Your task to perform on an android device: see tabs open on other devices in the chrome app Image 0: 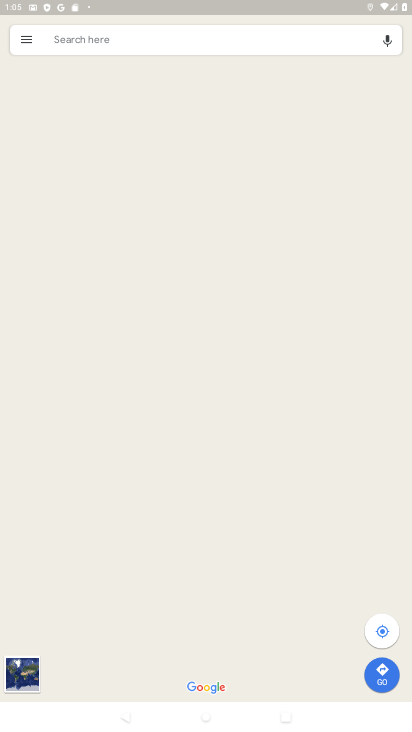
Step 0: press home button
Your task to perform on an android device: see tabs open on other devices in the chrome app Image 1: 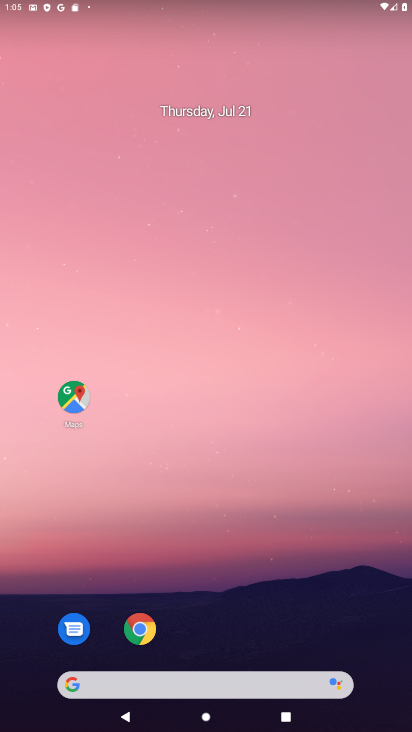
Step 1: drag from (216, 644) to (250, 69)
Your task to perform on an android device: see tabs open on other devices in the chrome app Image 2: 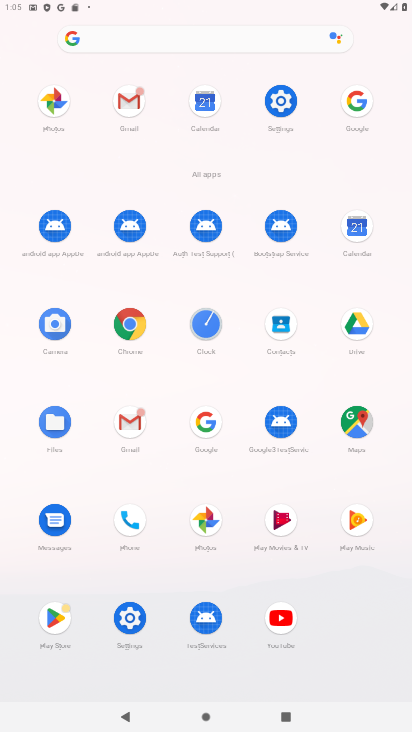
Step 2: click (132, 323)
Your task to perform on an android device: see tabs open on other devices in the chrome app Image 3: 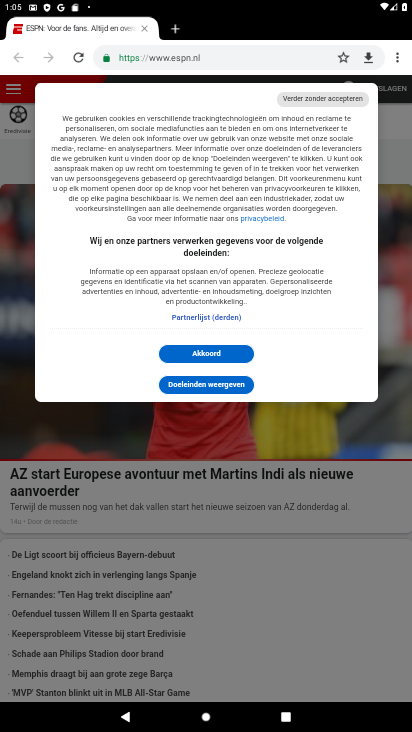
Step 3: click (392, 57)
Your task to perform on an android device: see tabs open on other devices in the chrome app Image 4: 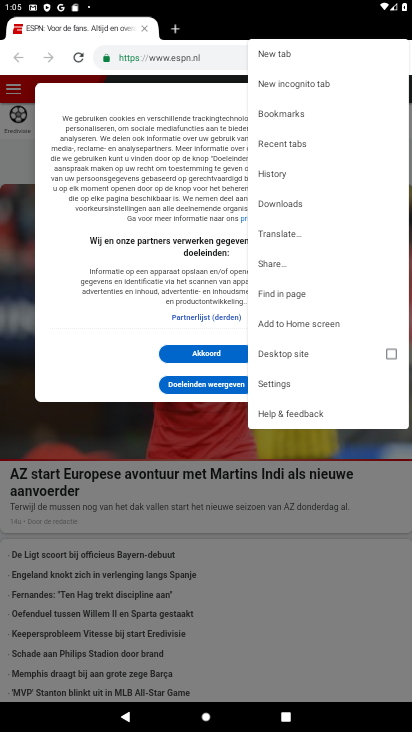
Step 4: click (296, 139)
Your task to perform on an android device: see tabs open on other devices in the chrome app Image 5: 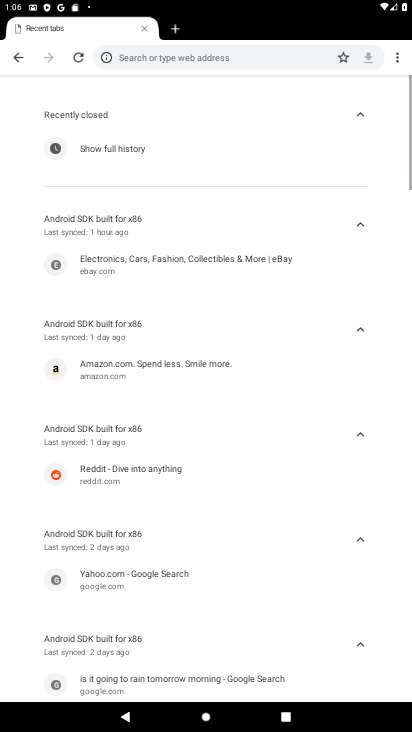
Step 5: task complete